Your task to perform on an android device: Open calendar and show me the third week of next month Image 0: 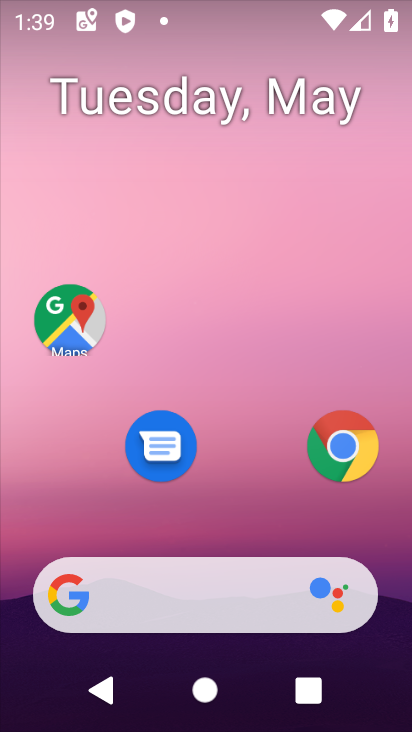
Step 0: drag from (216, 542) to (278, 14)
Your task to perform on an android device: Open calendar and show me the third week of next month Image 1: 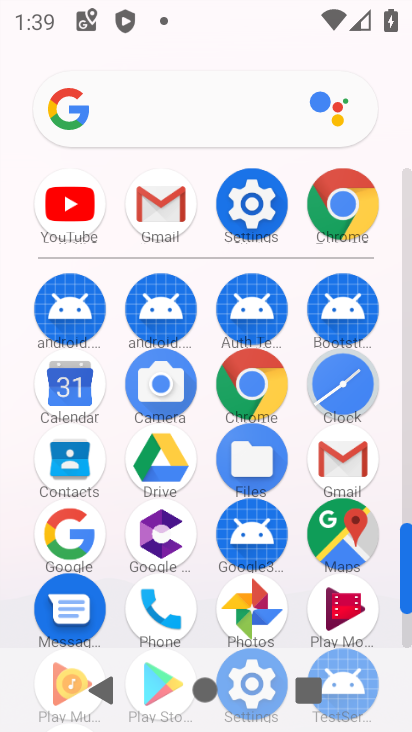
Step 1: click (80, 380)
Your task to perform on an android device: Open calendar and show me the third week of next month Image 2: 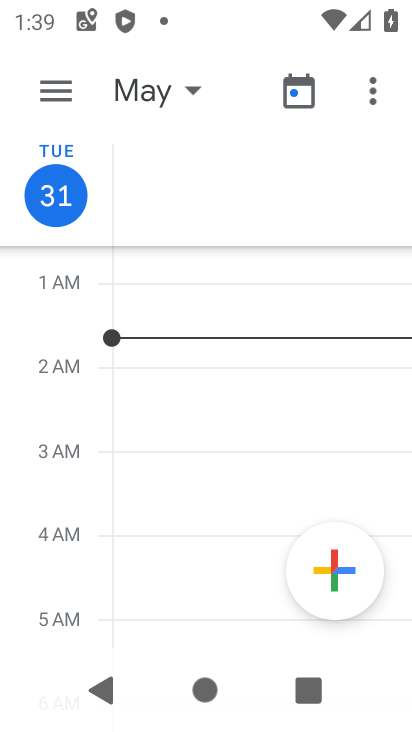
Step 2: click (34, 81)
Your task to perform on an android device: Open calendar and show me the third week of next month Image 3: 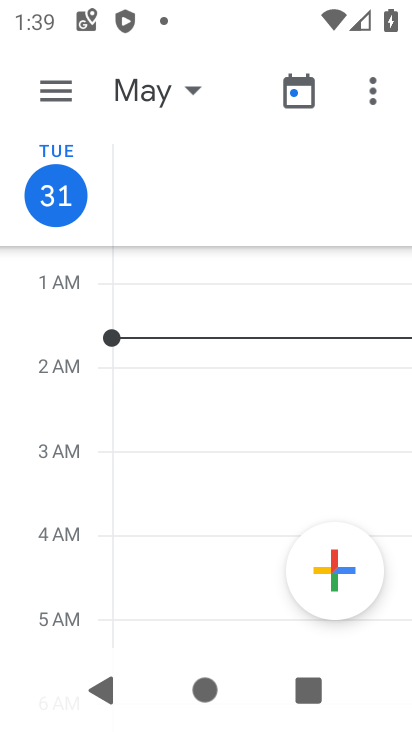
Step 3: click (56, 90)
Your task to perform on an android device: Open calendar and show me the third week of next month Image 4: 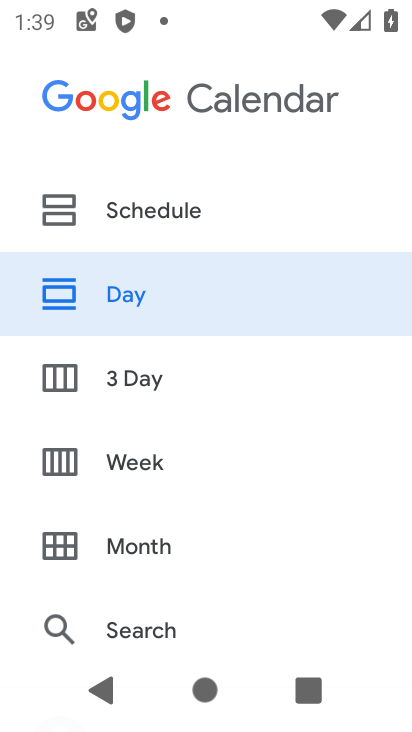
Step 4: click (189, 459)
Your task to perform on an android device: Open calendar and show me the third week of next month Image 5: 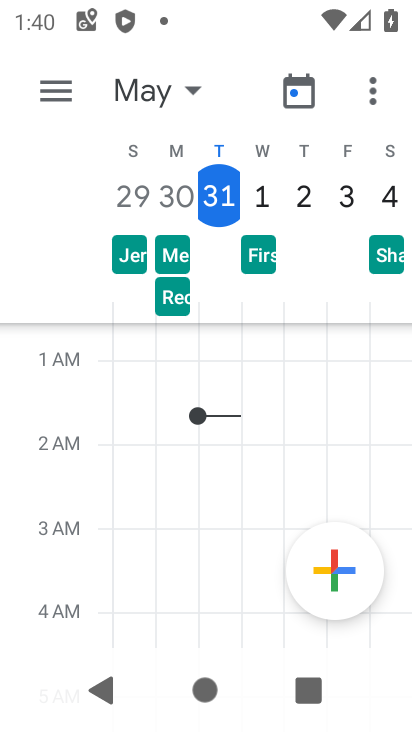
Step 5: task complete